Your task to perform on an android device: remove spam from my inbox in the gmail app Image 0: 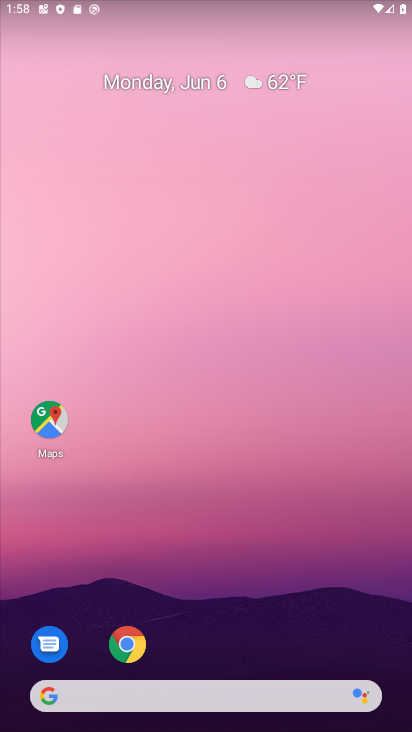
Step 0: drag from (121, 721) to (166, 67)
Your task to perform on an android device: remove spam from my inbox in the gmail app Image 1: 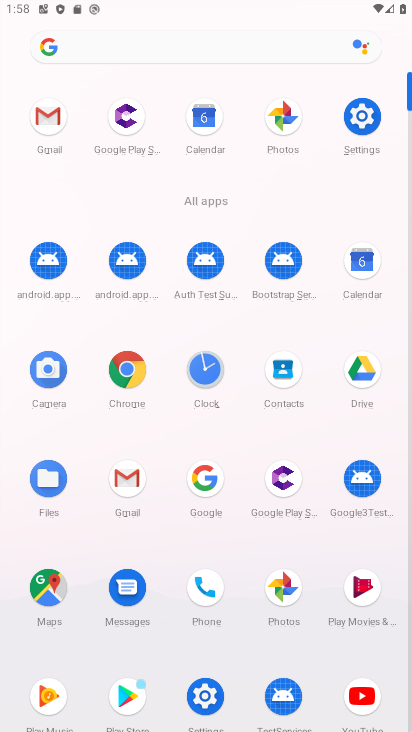
Step 1: click (127, 480)
Your task to perform on an android device: remove spam from my inbox in the gmail app Image 2: 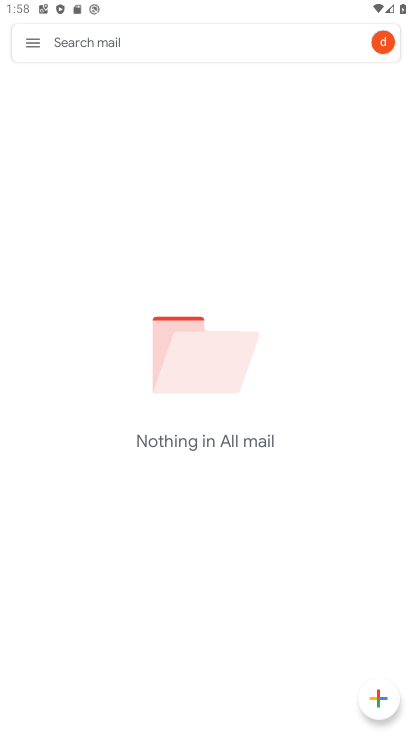
Step 2: click (32, 40)
Your task to perform on an android device: remove spam from my inbox in the gmail app Image 3: 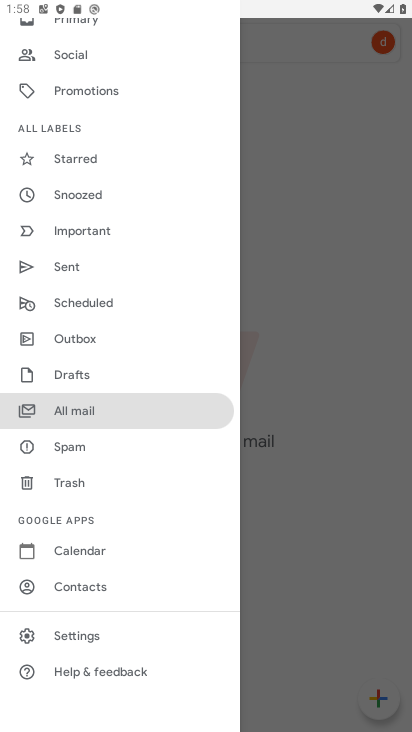
Step 3: click (85, 453)
Your task to perform on an android device: remove spam from my inbox in the gmail app Image 4: 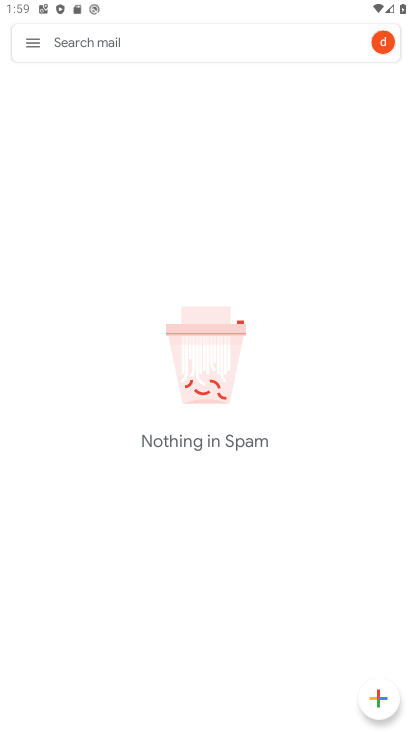
Step 4: task complete